Your task to perform on an android device: Check the weather Image 0: 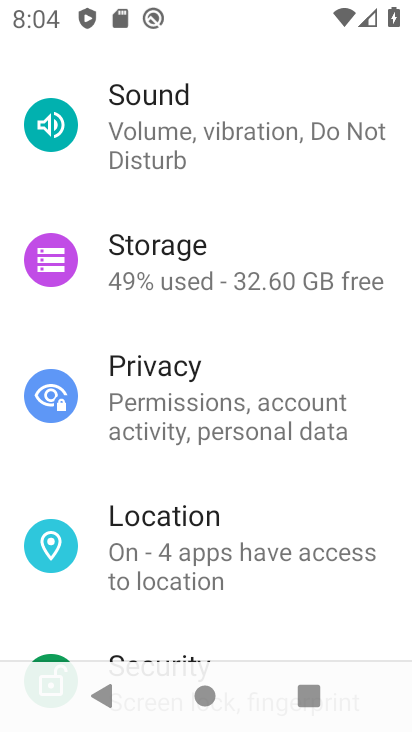
Step 0: press home button
Your task to perform on an android device: Check the weather Image 1: 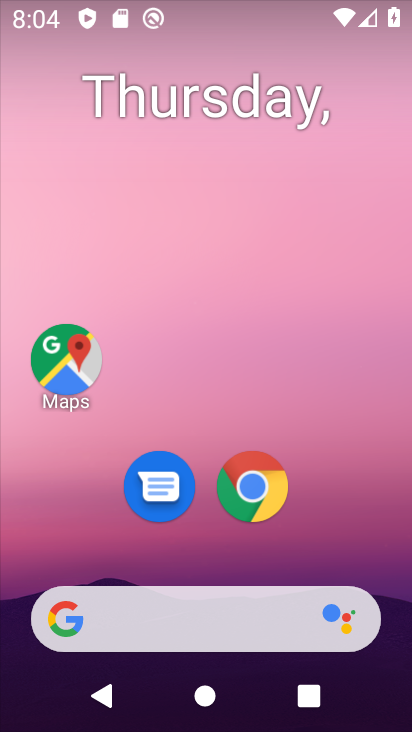
Step 1: drag from (214, 618) to (255, 125)
Your task to perform on an android device: Check the weather Image 2: 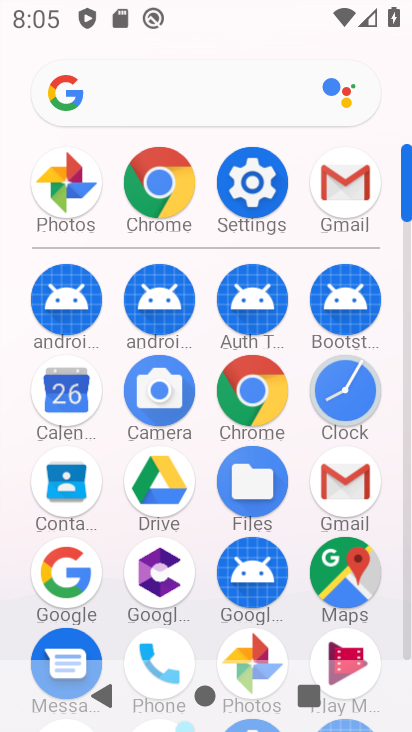
Step 2: click (80, 580)
Your task to perform on an android device: Check the weather Image 3: 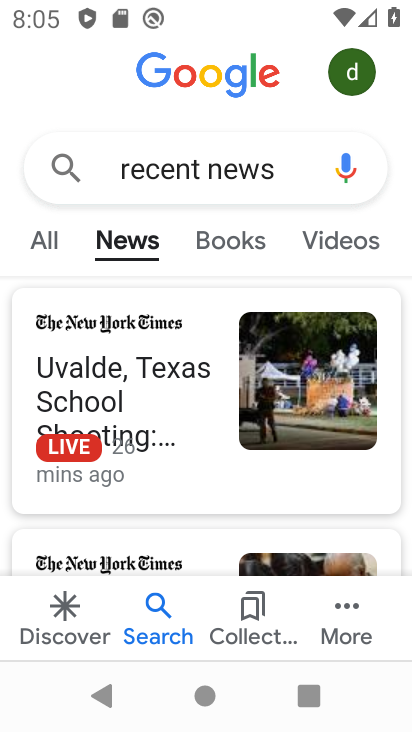
Step 3: click (191, 181)
Your task to perform on an android device: Check the weather Image 4: 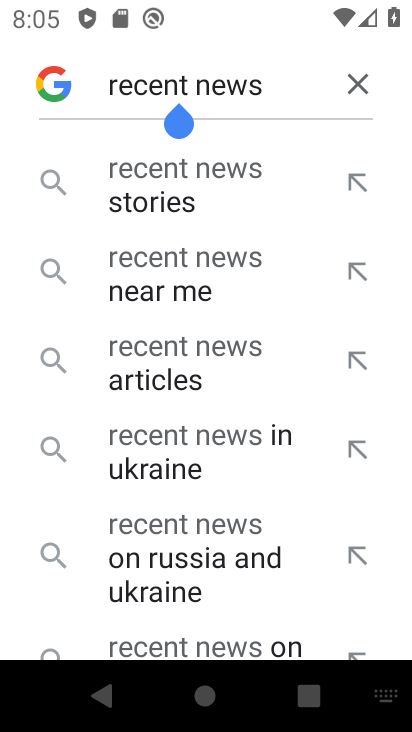
Step 4: click (360, 74)
Your task to perform on an android device: Check the weather Image 5: 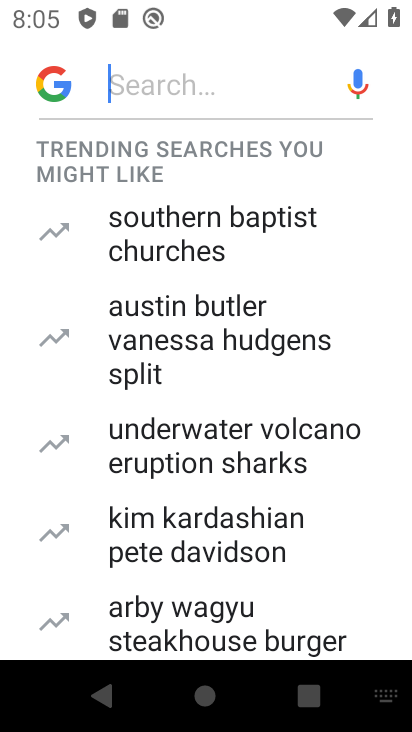
Step 5: type "weather"
Your task to perform on an android device: Check the weather Image 6: 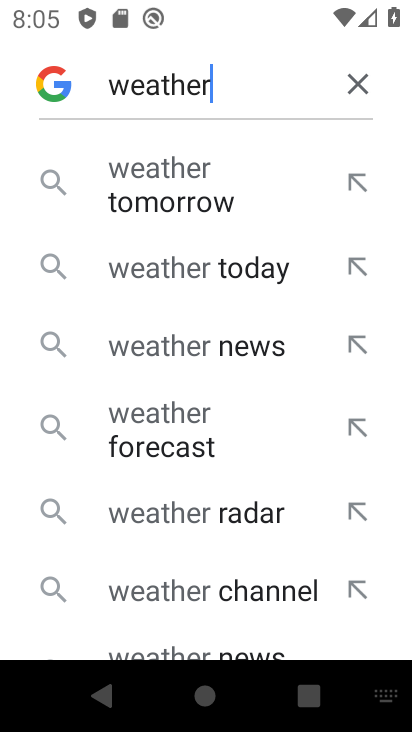
Step 6: click (253, 275)
Your task to perform on an android device: Check the weather Image 7: 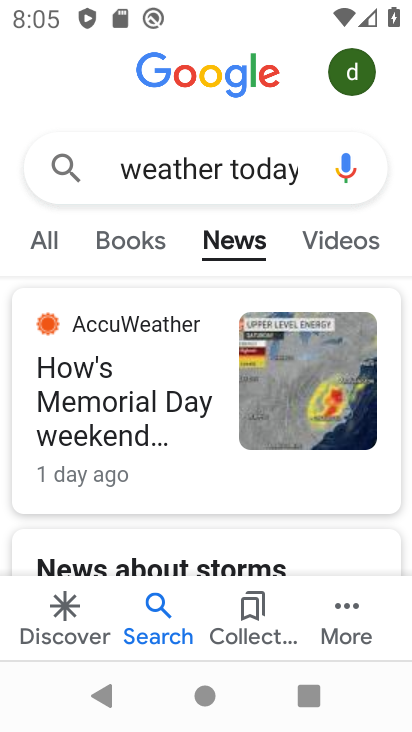
Step 7: click (65, 250)
Your task to perform on an android device: Check the weather Image 8: 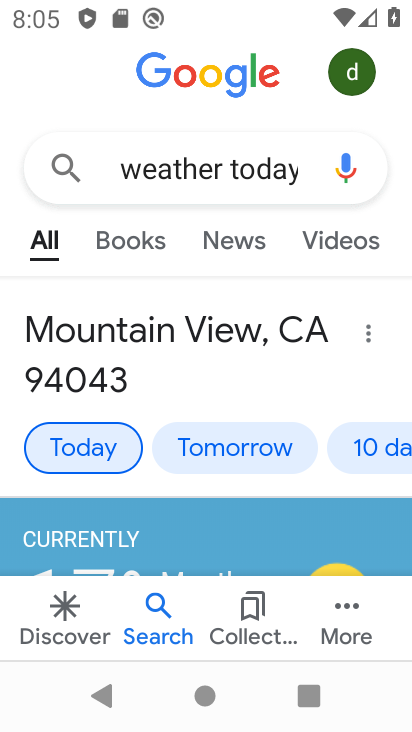
Step 8: task complete